Your task to perform on an android device: Search for flights from NYC to London Image 0: 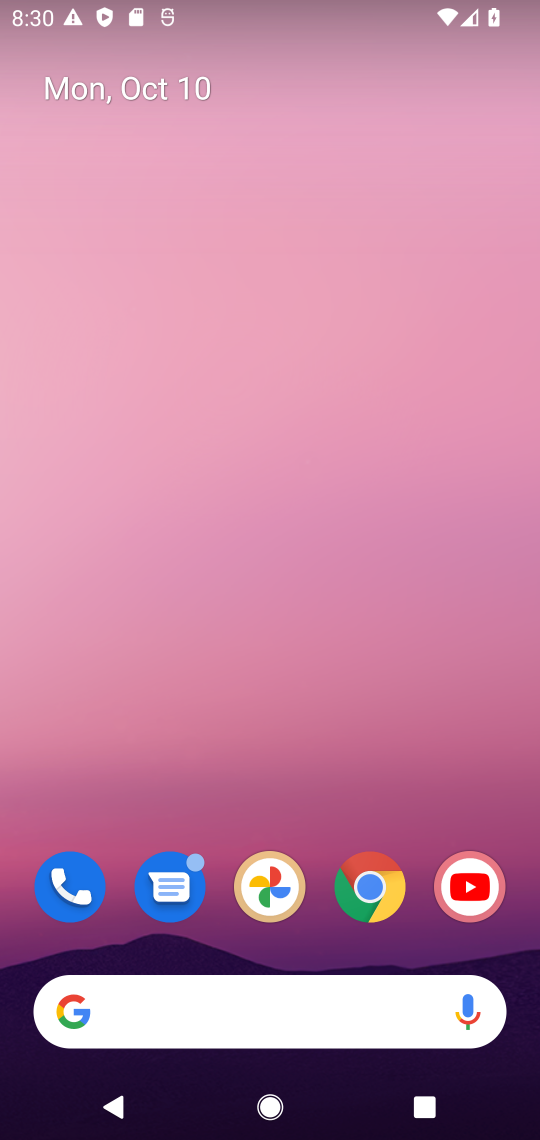
Step 0: click (363, 889)
Your task to perform on an android device: Search for flights from NYC to London Image 1: 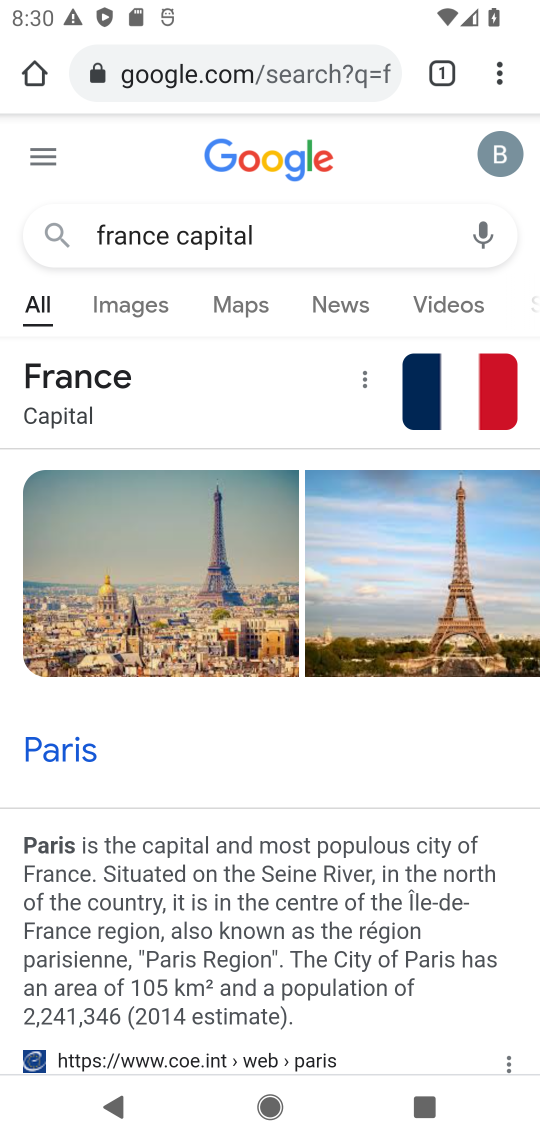
Step 1: click (179, 82)
Your task to perform on an android device: Search for flights from NYC to London Image 2: 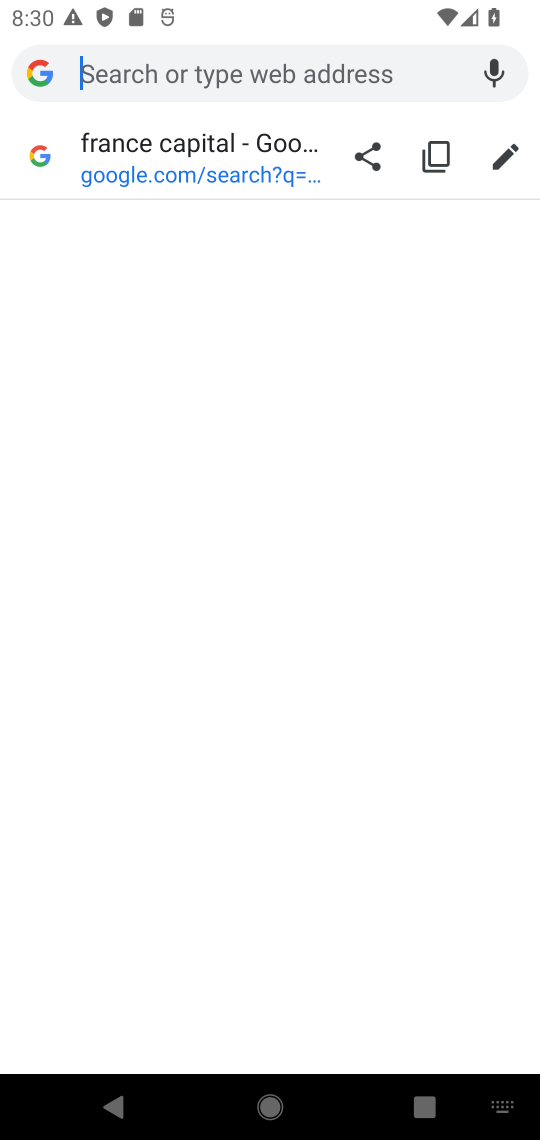
Step 2: type "nyc to london flights"
Your task to perform on an android device: Search for flights from NYC to London Image 3: 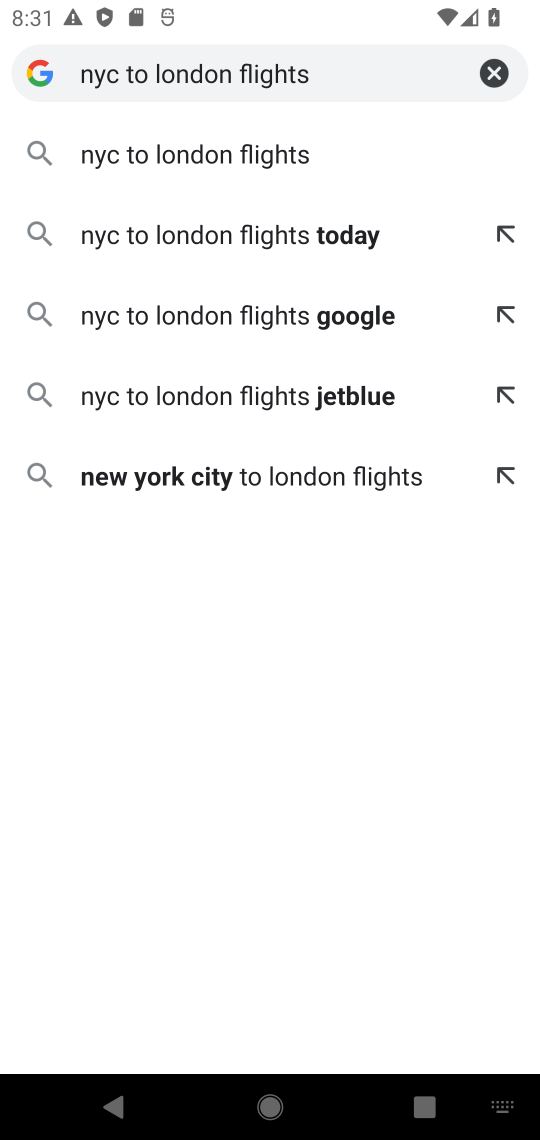
Step 3: click (297, 154)
Your task to perform on an android device: Search for flights from NYC to London Image 4: 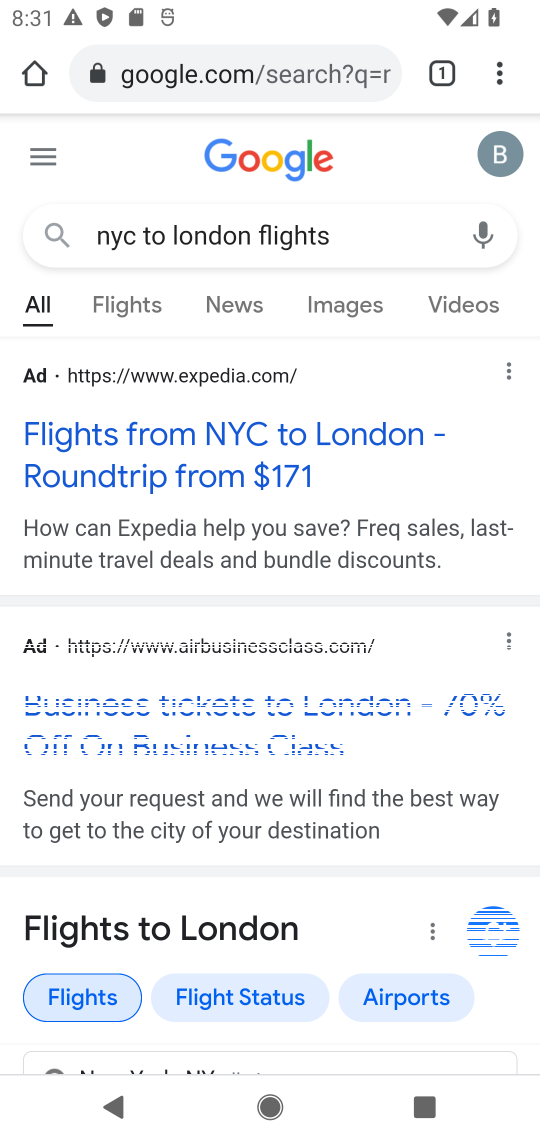
Step 4: drag from (396, 877) to (374, 437)
Your task to perform on an android device: Search for flights from NYC to London Image 5: 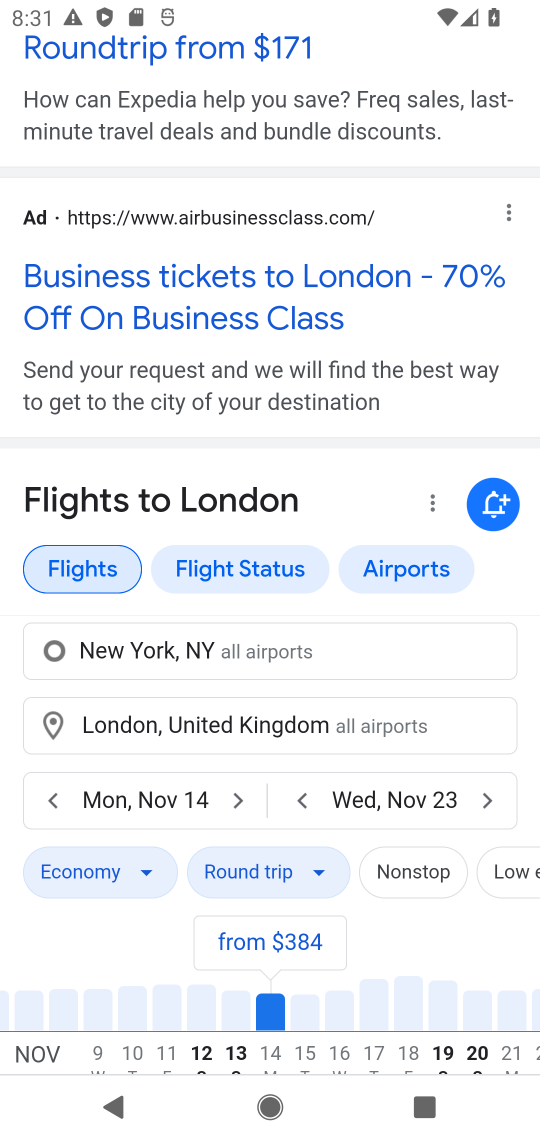
Step 5: drag from (390, 938) to (349, 436)
Your task to perform on an android device: Search for flights from NYC to London Image 6: 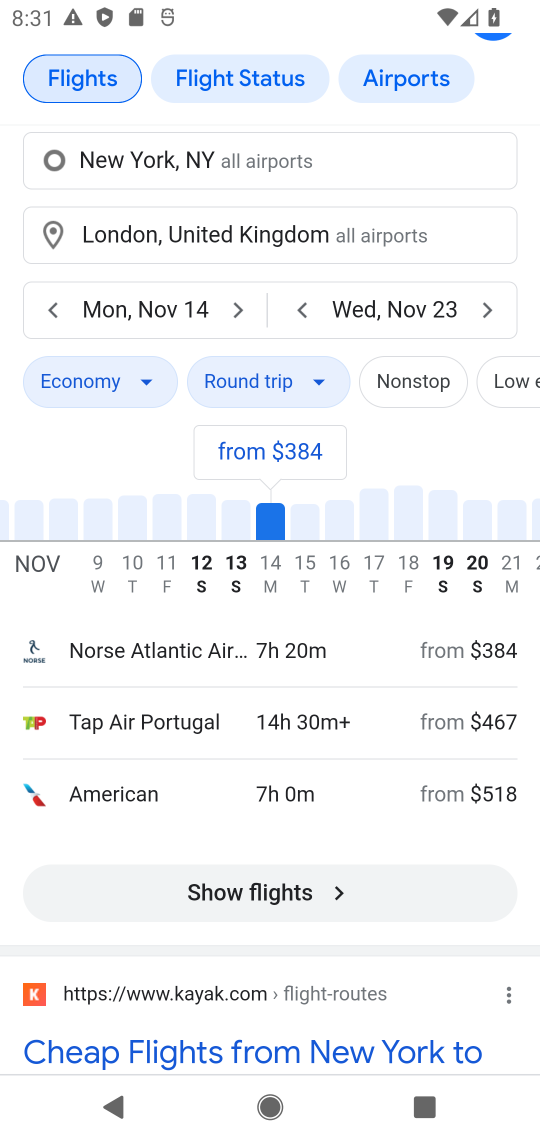
Step 6: click (323, 894)
Your task to perform on an android device: Search for flights from NYC to London Image 7: 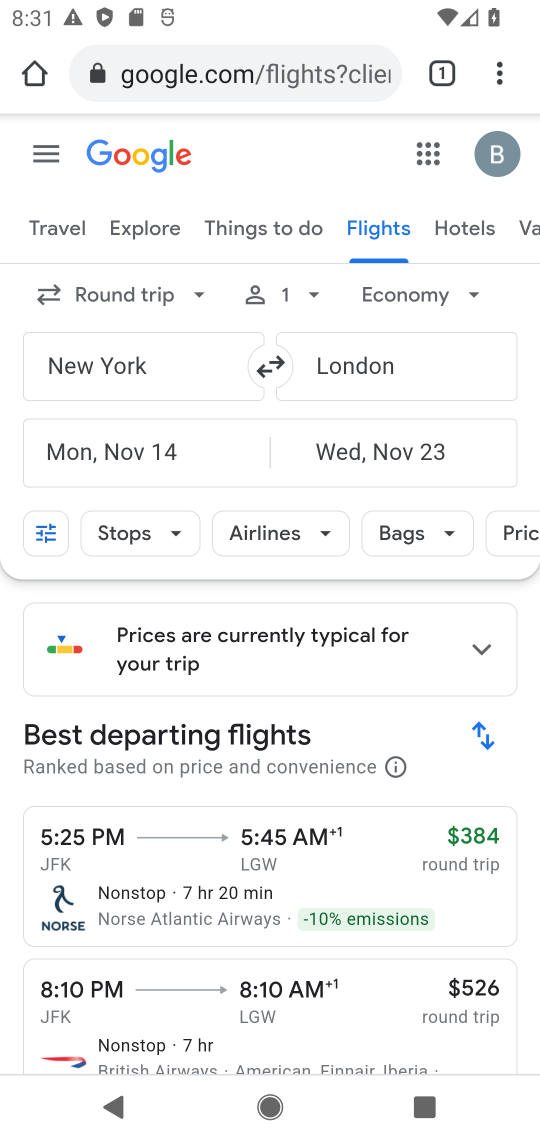
Step 7: task complete